Your task to perform on an android device: change the clock display to show seconds Image 0: 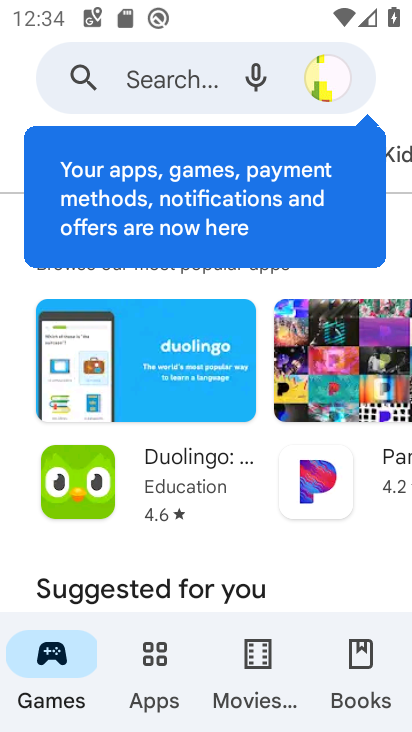
Step 0: press home button
Your task to perform on an android device: change the clock display to show seconds Image 1: 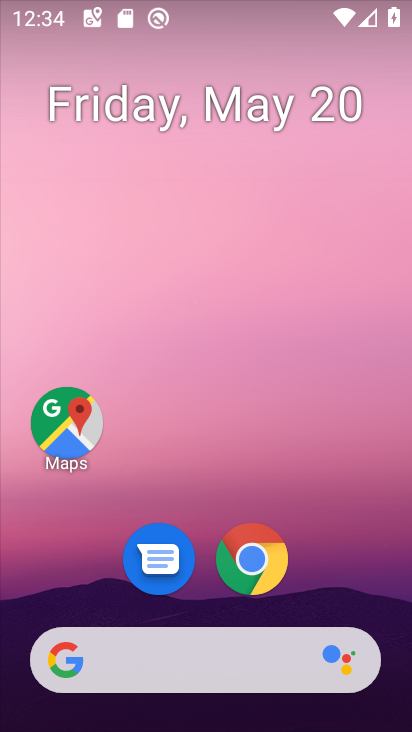
Step 1: drag from (382, 604) to (335, 133)
Your task to perform on an android device: change the clock display to show seconds Image 2: 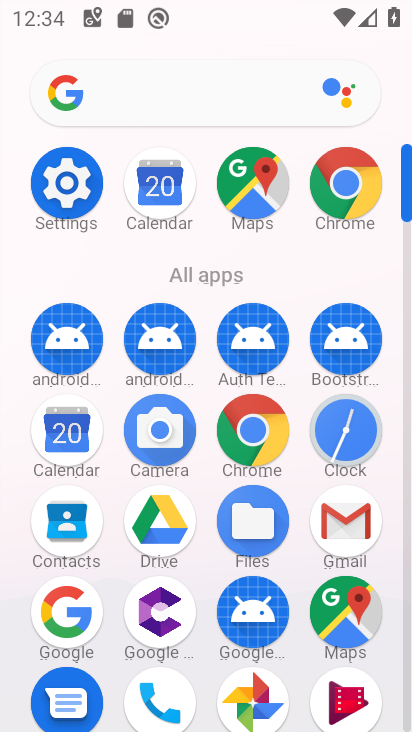
Step 2: click (359, 424)
Your task to perform on an android device: change the clock display to show seconds Image 3: 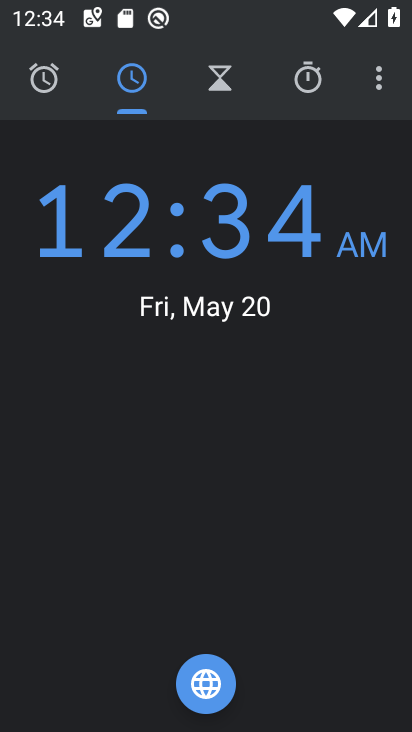
Step 3: click (383, 86)
Your task to perform on an android device: change the clock display to show seconds Image 4: 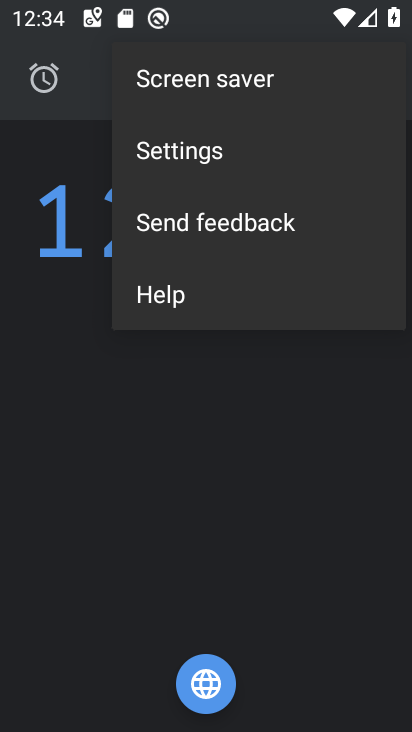
Step 4: click (340, 149)
Your task to perform on an android device: change the clock display to show seconds Image 5: 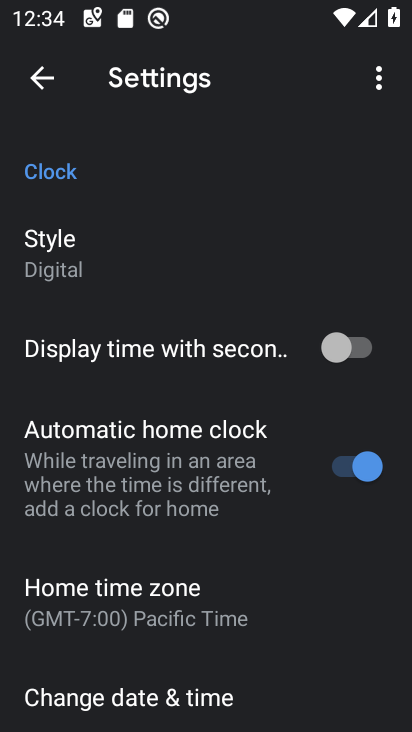
Step 5: click (350, 341)
Your task to perform on an android device: change the clock display to show seconds Image 6: 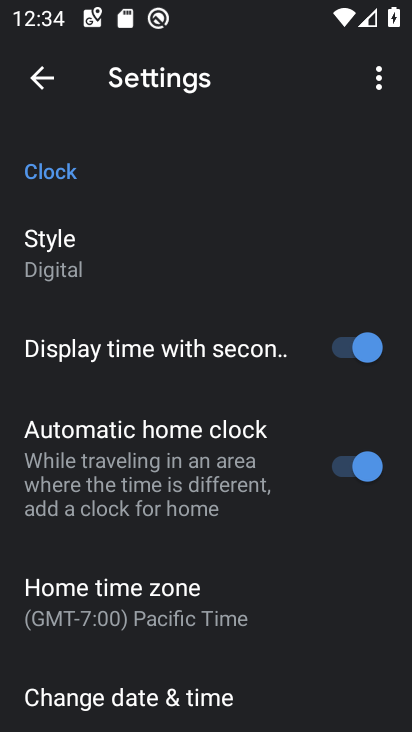
Step 6: task complete